Your task to perform on an android device: Open Google Maps and go to "Timeline" Image 0: 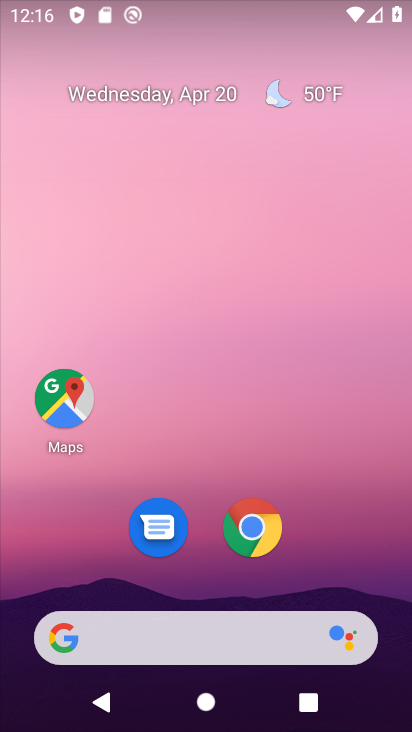
Step 0: click (59, 394)
Your task to perform on an android device: Open Google Maps and go to "Timeline" Image 1: 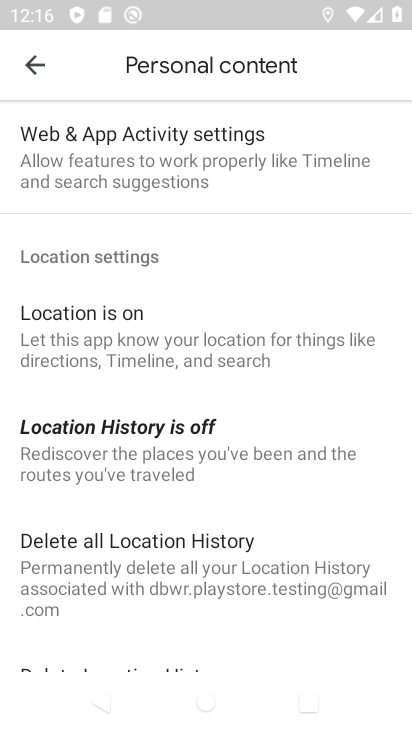
Step 1: click (30, 64)
Your task to perform on an android device: Open Google Maps and go to "Timeline" Image 2: 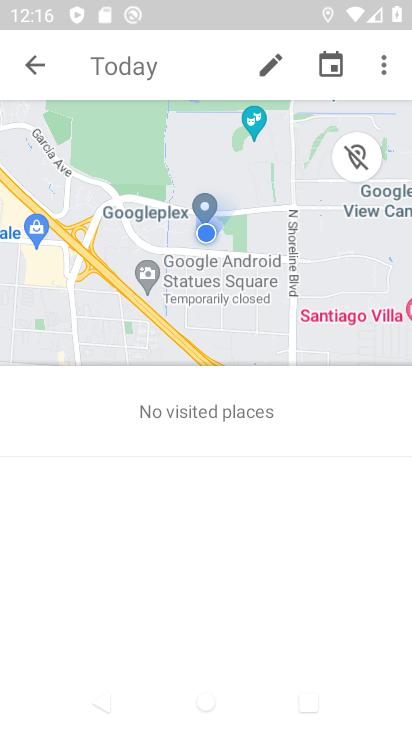
Step 2: task complete